Your task to perform on an android device: Open calendar and show me the fourth week of next month Image 0: 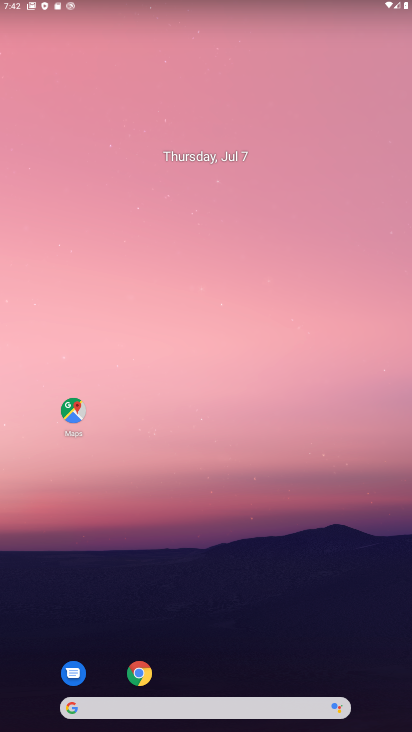
Step 0: drag from (223, 670) to (186, 15)
Your task to perform on an android device: Open calendar and show me the fourth week of next month Image 1: 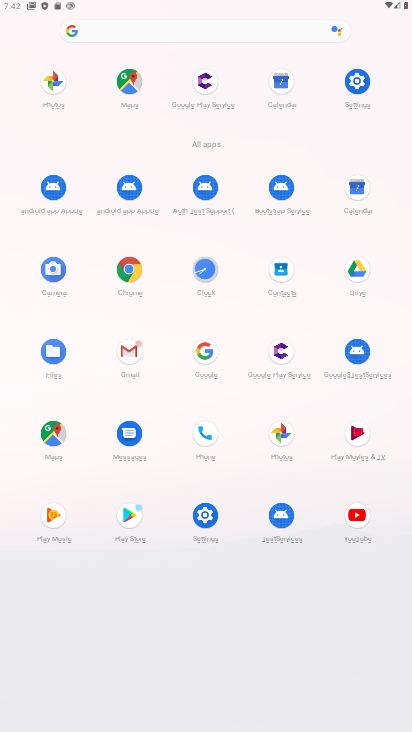
Step 1: click (357, 198)
Your task to perform on an android device: Open calendar and show me the fourth week of next month Image 2: 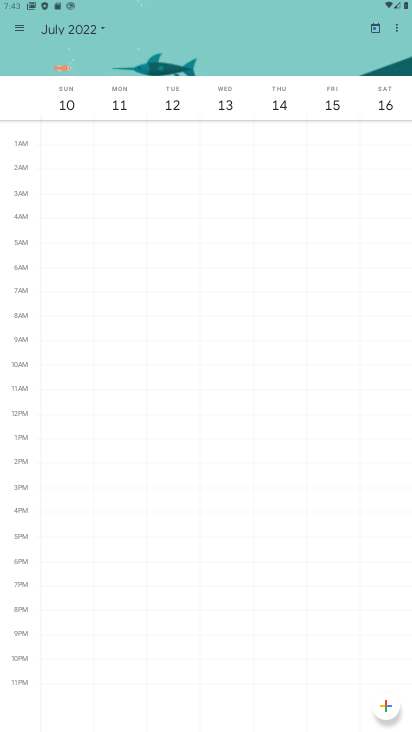
Step 2: click (25, 27)
Your task to perform on an android device: Open calendar and show me the fourth week of next month Image 3: 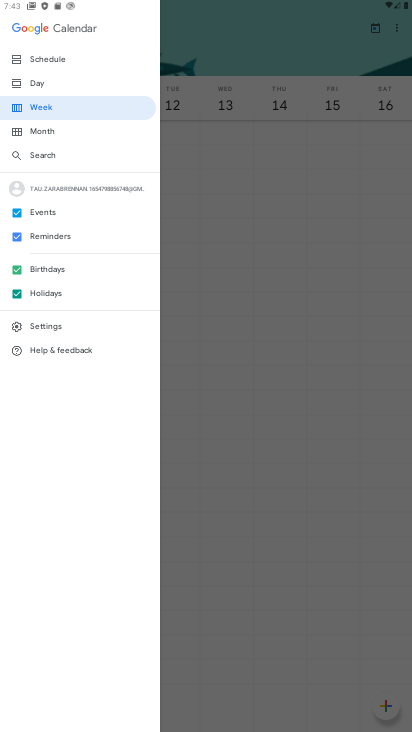
Step 3: click (37, 111)
Your task to perform on an android device: Open calendar and show me the fourth week of next month Image 4: 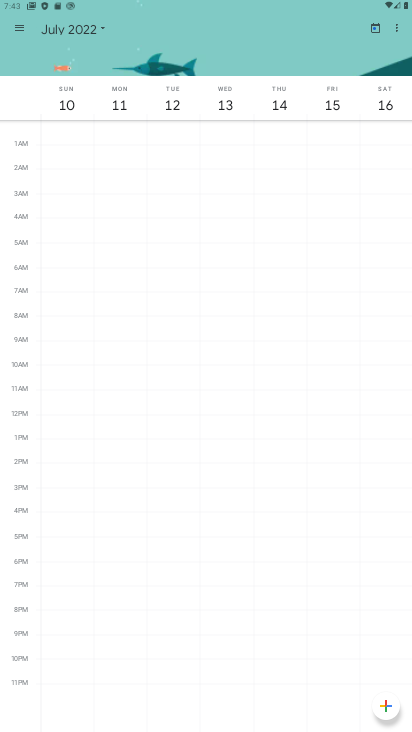
Step 4: task complete